Your task to perform on an android device: turn on data saver in the chrome app Image 0: 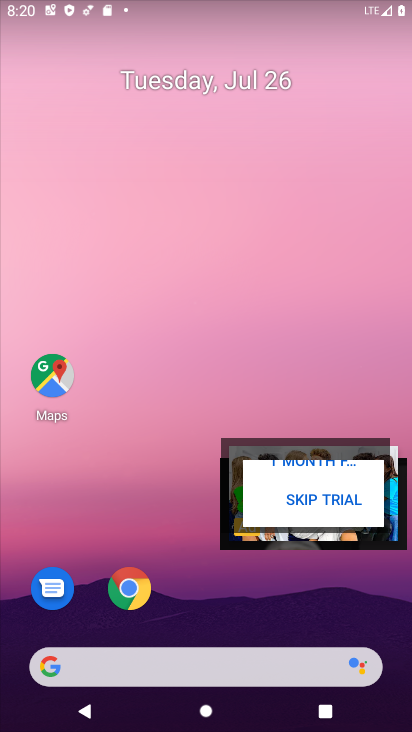
Step 0: click (138, 583)
Your task to perform on an android device: turn on data saver in the chrome app Image 1: 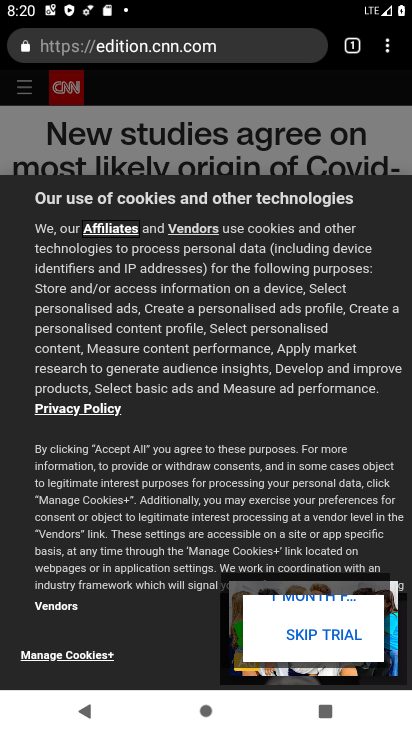
Step 1: click (392, 39)
Your task to perform on an android device: turn on data saver in the chrome app Image 2: 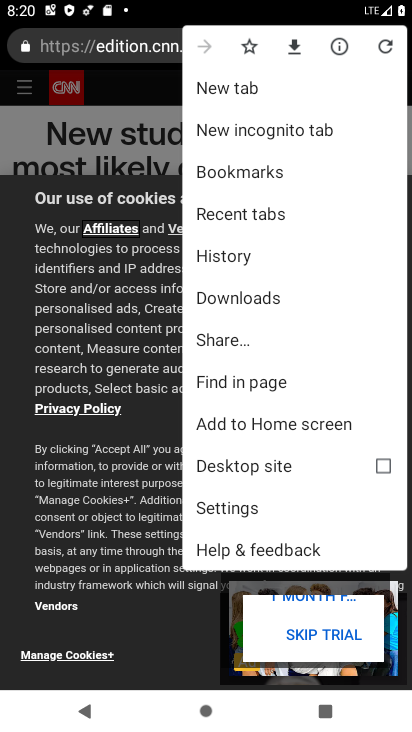
Step 2: click (216, 506)
Your task to perform on an android device: turn on data saver in the chrome app Image 3: 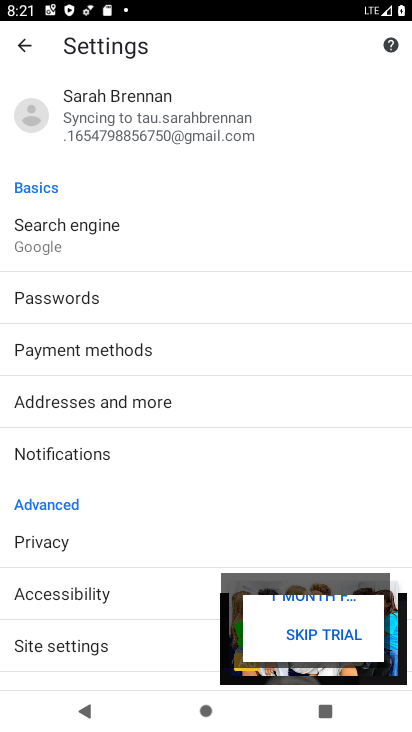
Step 3: drag from (61, 660) to (60, 464)
Your task to perform on an android device: turn on data saver in the chrome app Image 4: 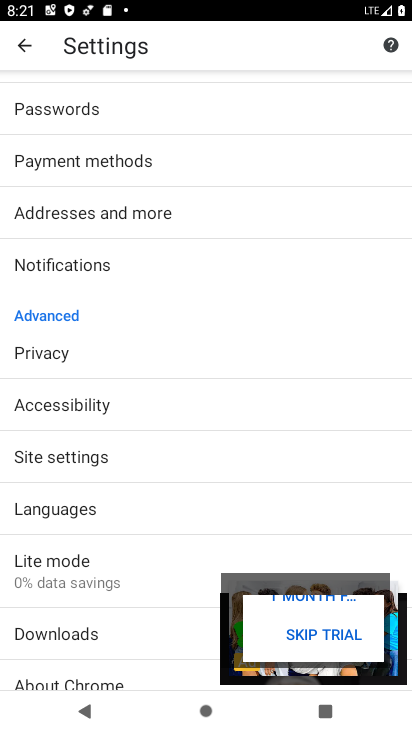
Step 4: click (84, 593)
Your task to perform on an android device: turn on data saver in the chrome app Image 5: 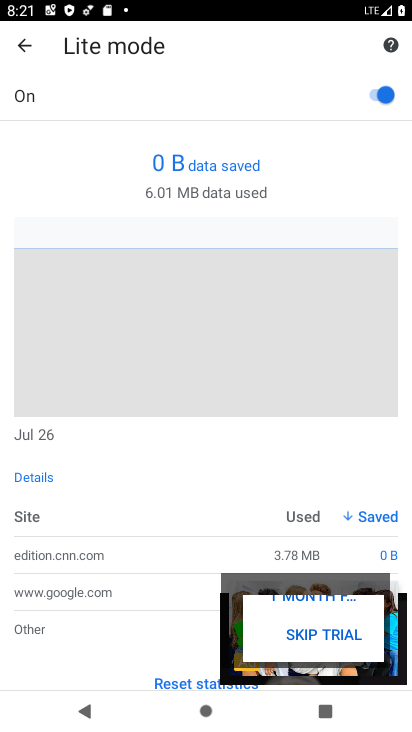
Step 5: task complete